Your task to perform on an android device: Do I have any events this weekend? Image 0: 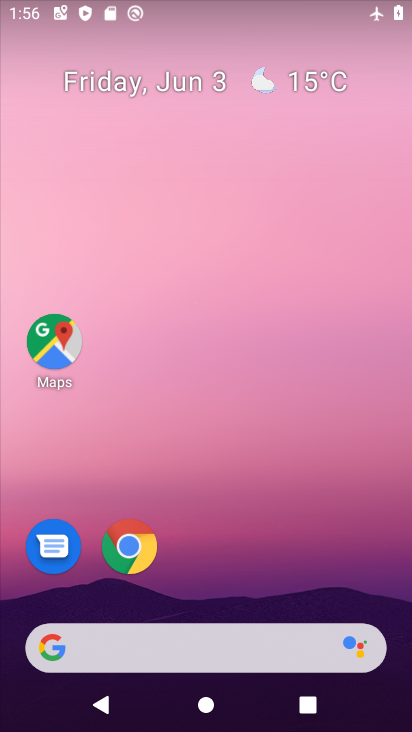
Step 0: drag from (260, 470) to (313, 9)
Your task to perform on an android device: Do I have any events this weekend? Image 1: 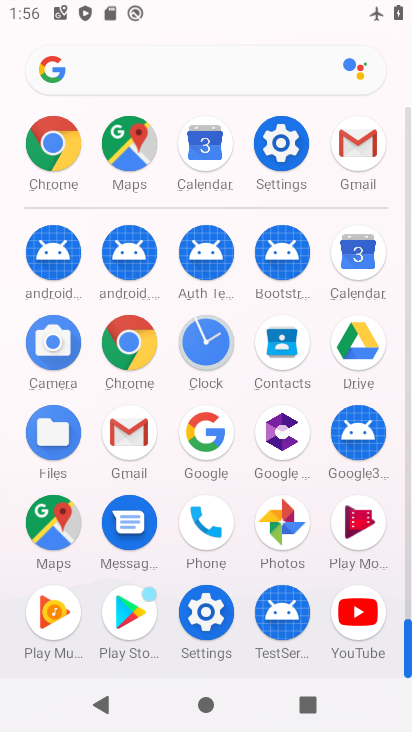
Step 1: click (204, 153)
Your task to perform on an android device: Do I have any events this weekend? Image 2: 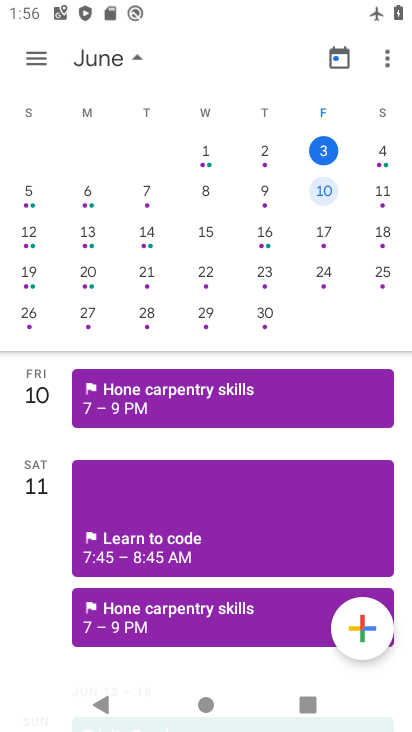
Step 2: click (382, 168)
Your task to perform on an android device: Do I have any events this weekend? Image 3: 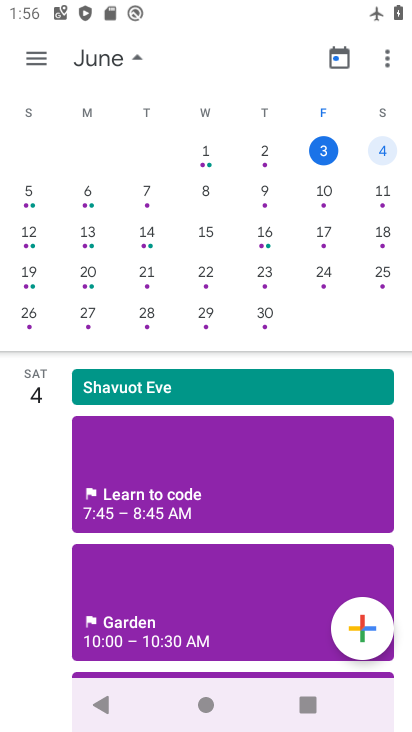
Step 3: task complete